Your task to perform on an android device: set the timer Image 0: 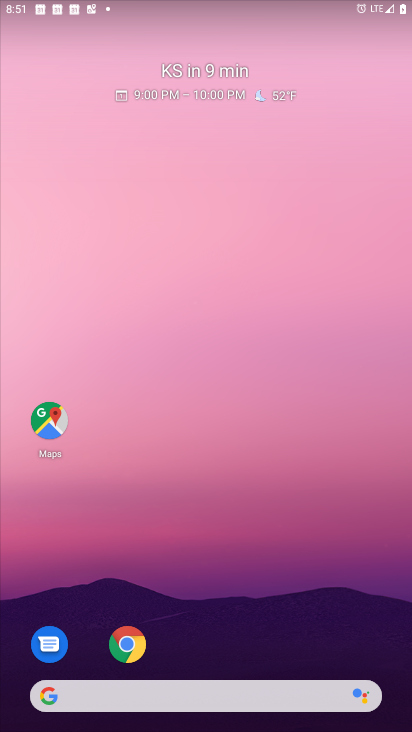
Step 0: drag from (364, 632) to (277, 102)
Your task to perform on an android device: set the timer Image 1: 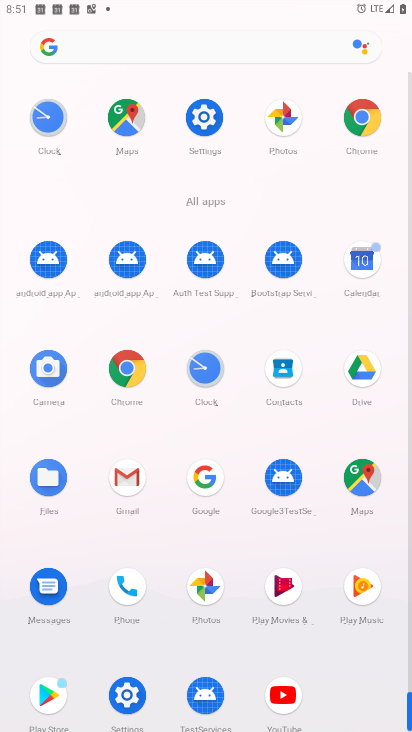
Step 1: click (205, 364)
Your task to perform on an android device: set the timer Image 2: 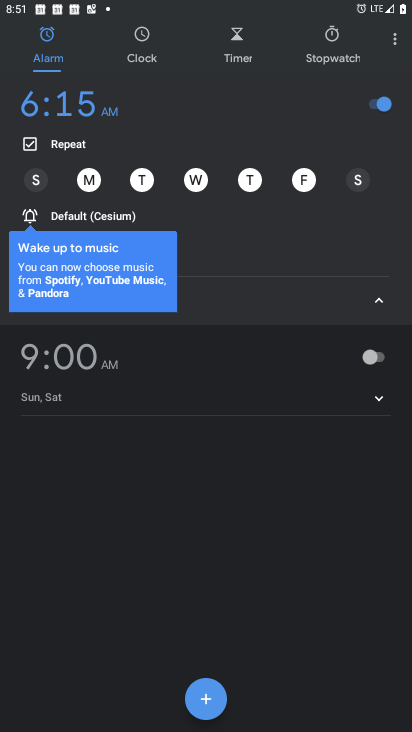
Step 2: click (234, 39)
Your task to perform on an android device: set the timer Image 3: 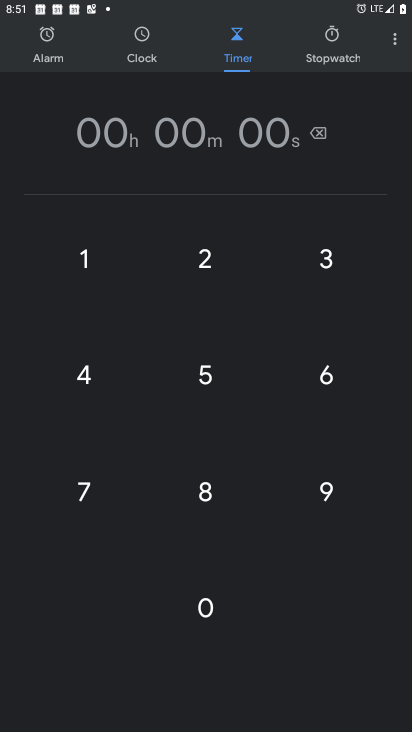
Step 3: click (86, 258)
Your task to perform on an android device: set the timer Image 4: 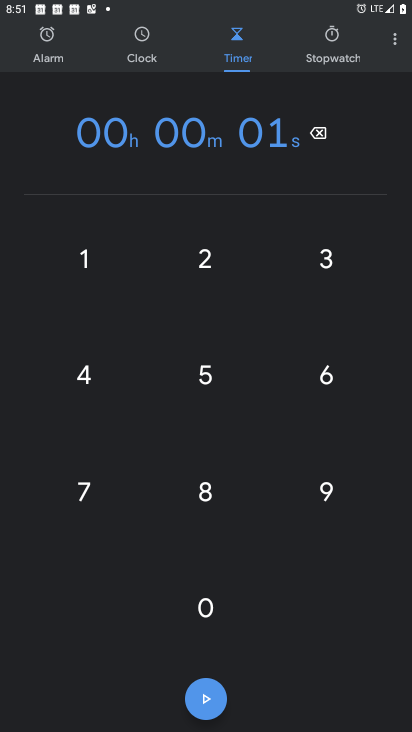
Step 4: click (309, 255)
Your task to perform on an android device: set the timer Image 5: 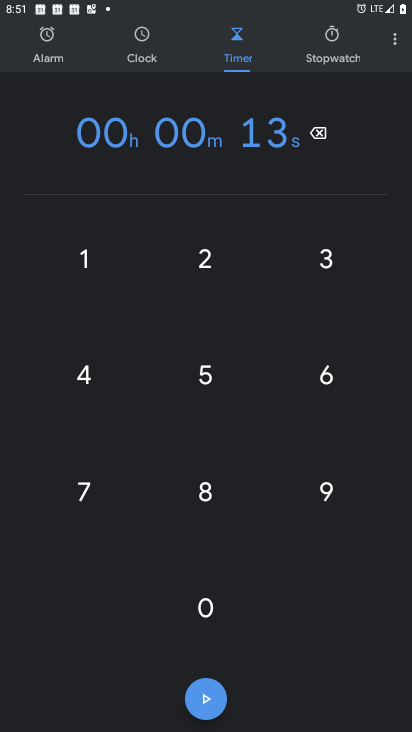
Step 5: click (209, 611)
Your task to perform on an android device: set the timer Image 6: 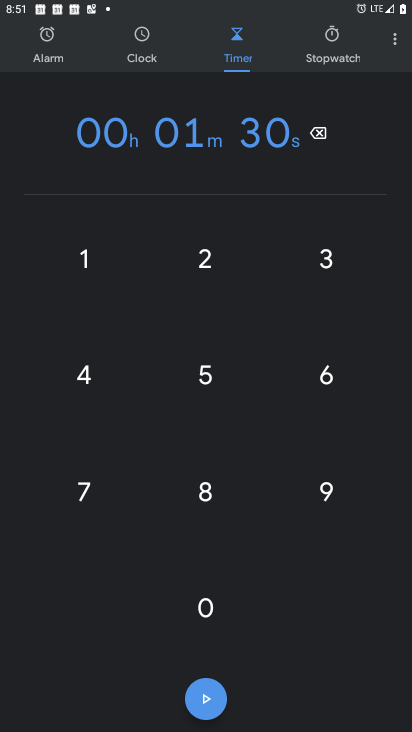
Step 6: click (209, 611)
Your task to perform on an android device: set the timer Image 7: 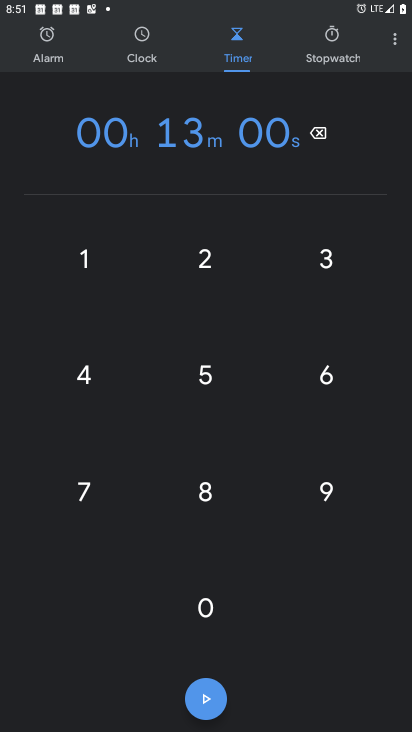
Step 7: click (209, 611)
Your task to perform on an android device: set the timer Image 8: 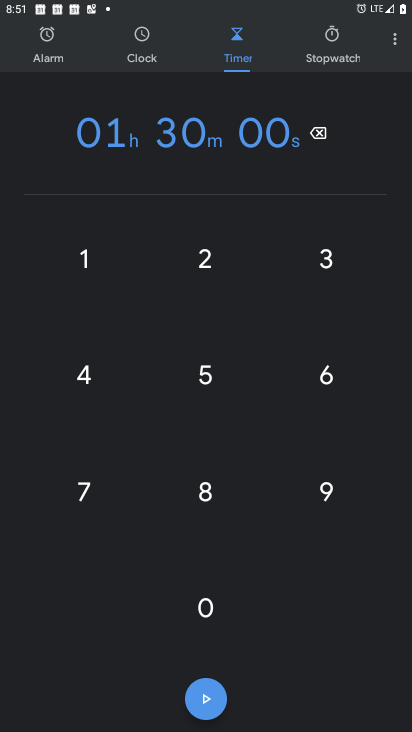
Step 8: task complete